Your task to perform on an android device: Go to Google maps Image 0: 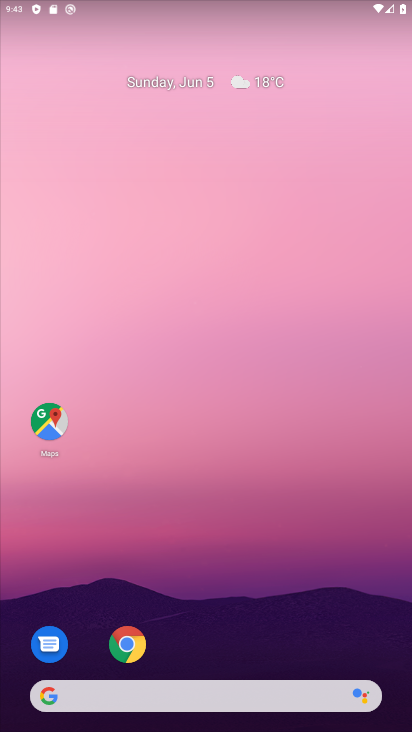
Step 0: click (46, 432)
Your task to perform on an android device: Go to Google maps Image 1: 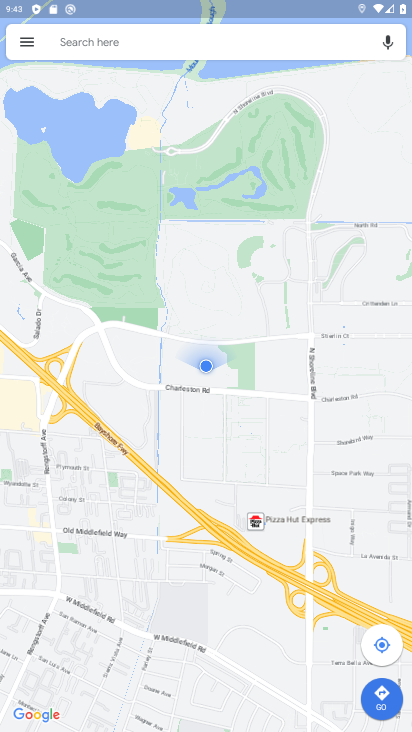
Step 1: task complete